Your task to perform on an android device: Go to network settings Image 0: 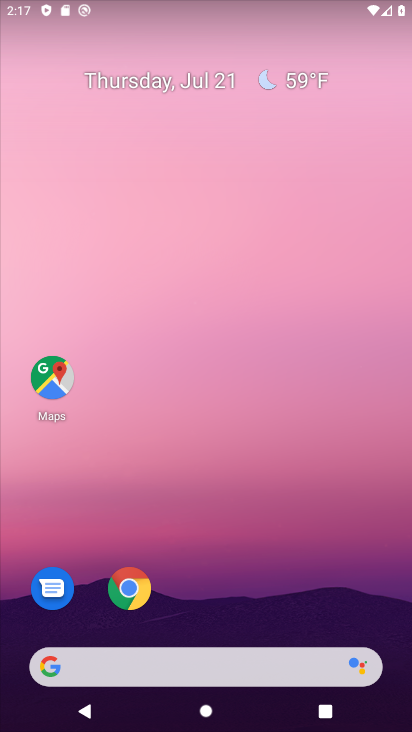
Step 0: click (403, 626)
Your task to perform on an android device: Go to network settings Image 1: 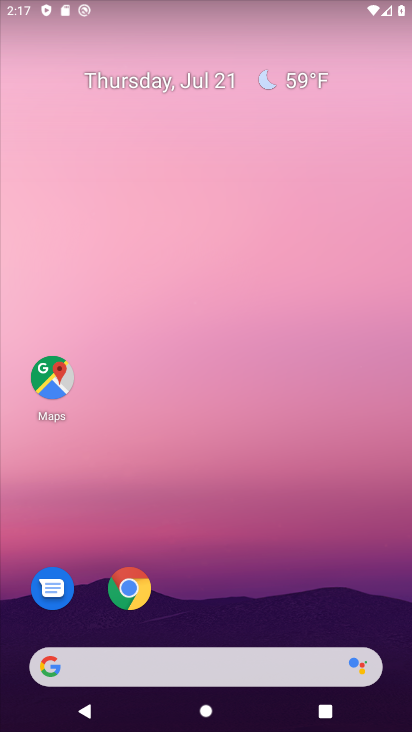
Step 1: drag from (393, 629) to (326, 163)
Your task to perform on an android device: Go to network settings Image 2: 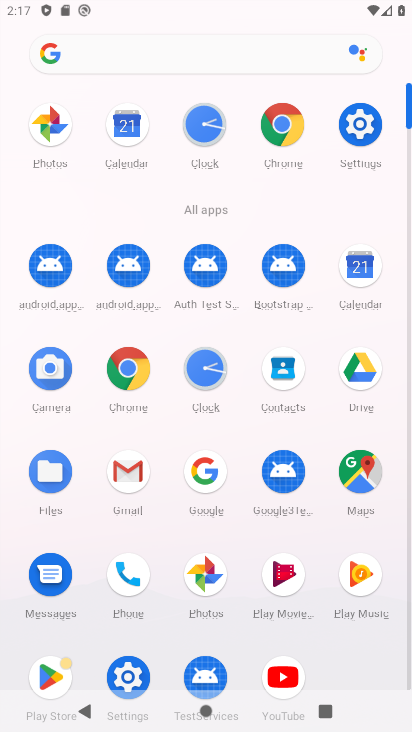
Step 2: click (366, 121)
Your task to perform on an android device: Go to network settings Image 3: 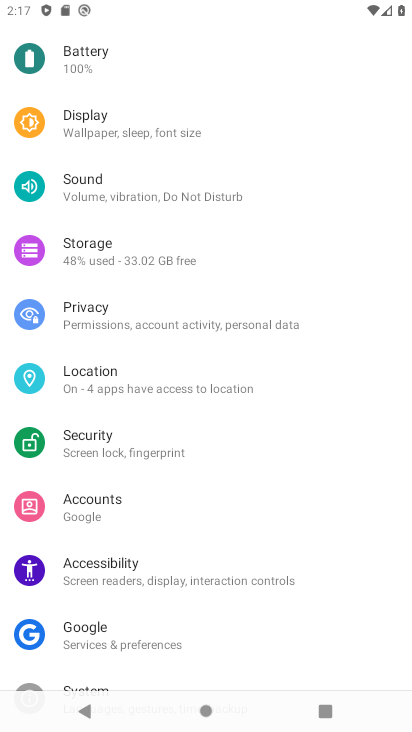
Step 3: drag from (299, 246) to (263, 557)
Your task to perform on an android device: Go to network settings Image 4: 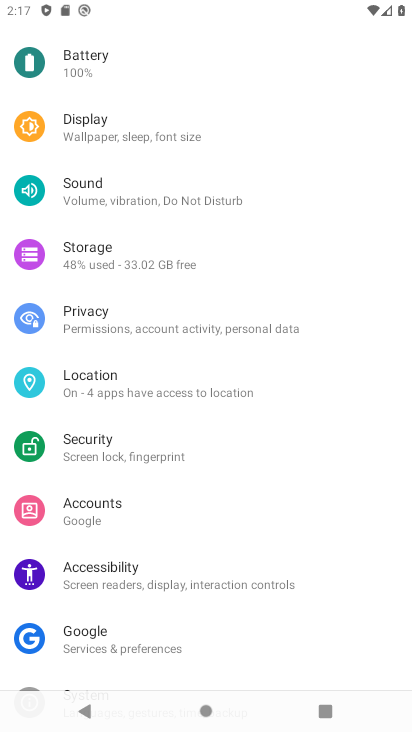
Step 4: drag from (354, 107) to (333, 521)
Your task to perform on an android device: Go to network settings Image 5: 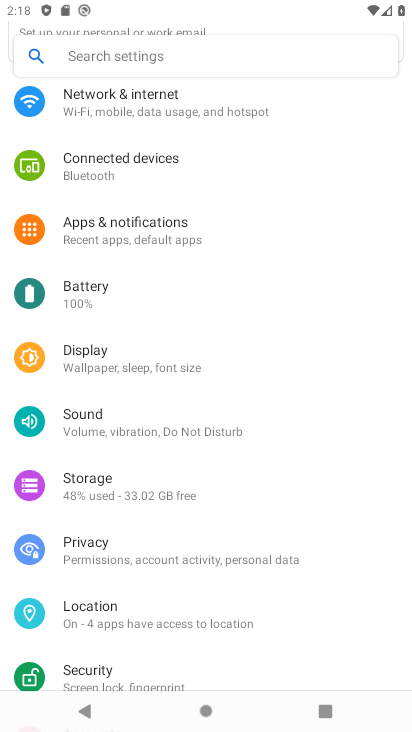
Step 5: click (119, 103)
Your task to perform on an android device: Go to network settings Image 6: 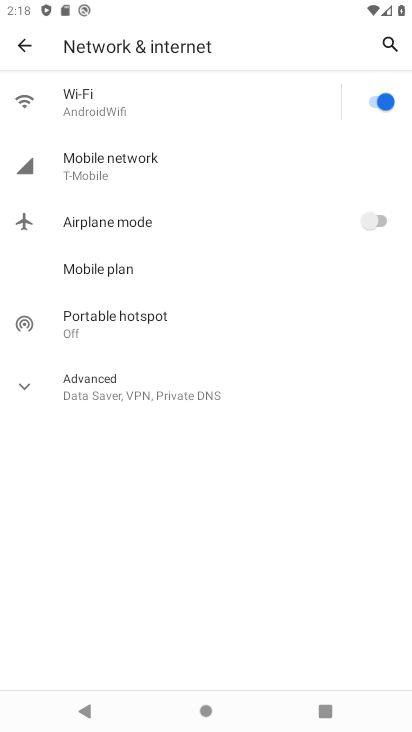
Step 6: click (103, 172)
Your task to perform on an android device: Go to network settings Image 7: 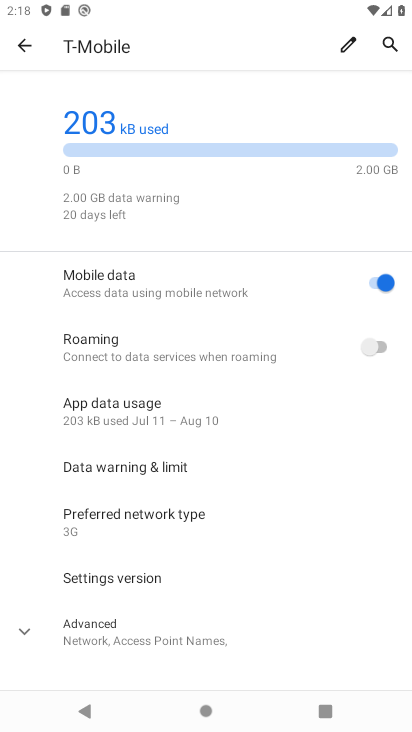
Step 7: task complete